Your task to perform on an android device: turn smart compose on in the gmail app Image 0: 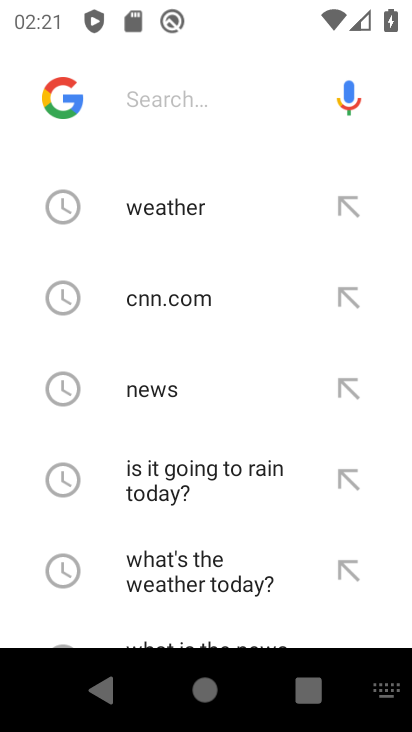
Step 0: press back button
Your task to perform on an android device: turn smart compose on in the gmail app Image 1: 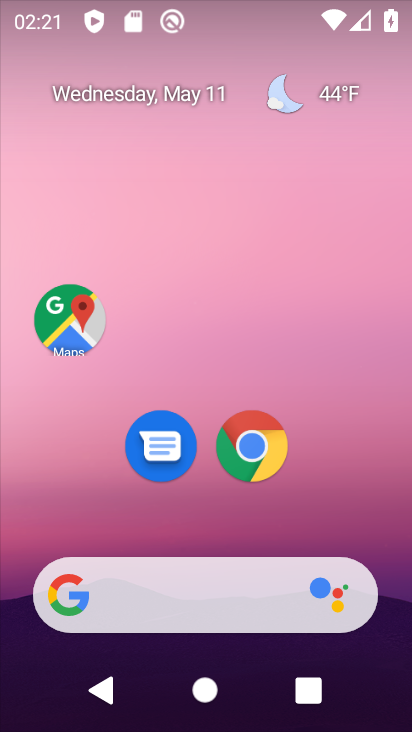
Step 1: drag from (343, 510) to (222, 199)
Your task to perform on an android device: turn smart compose on in the gmail app Image 2: 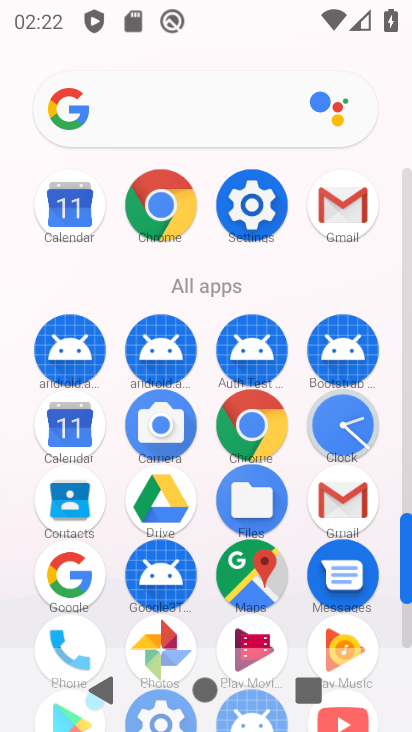
Step 2: click (343, 211)
Your task to perform on an android device: turn smart compose on in the gmail app Image 3: 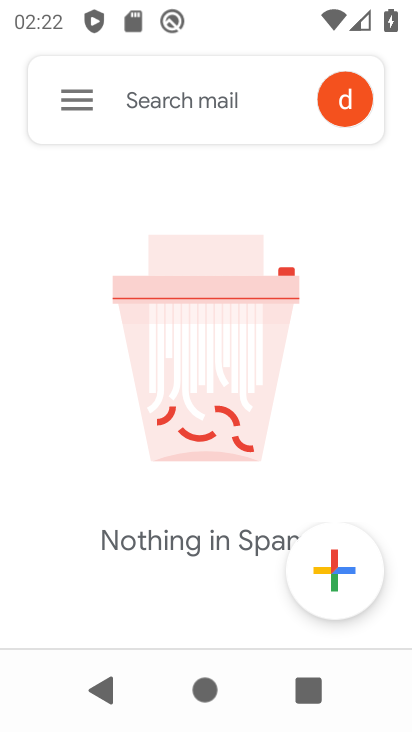
Step 3: click (82, 103)
Your task to perform on an android device: turn smart compose on in the gmail app Image 4: 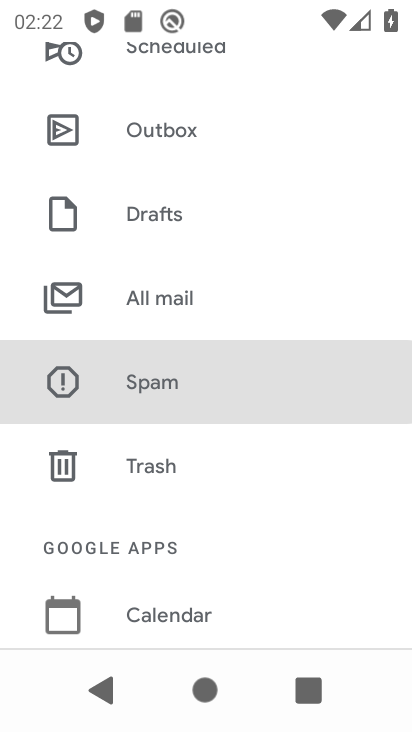
Step 4: drag from (157, 564) to (170, 274)
Your task to perform on an android device: turn smart compose on in the gmail app Image 5: 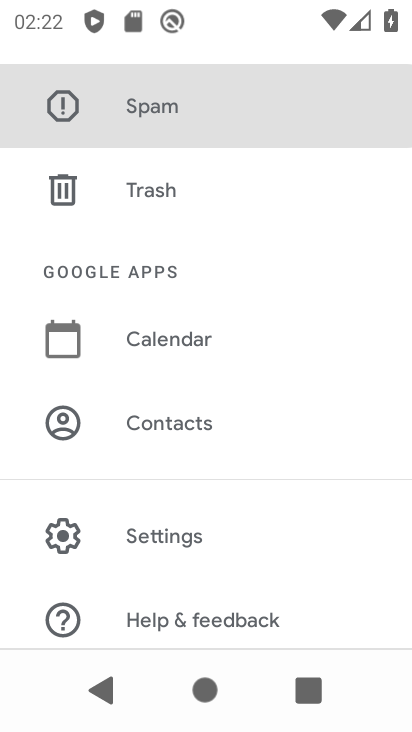
Step 5: click (126, 532)
Your task to perform on an android device: turn smart compose on in the gmail app Image 6: 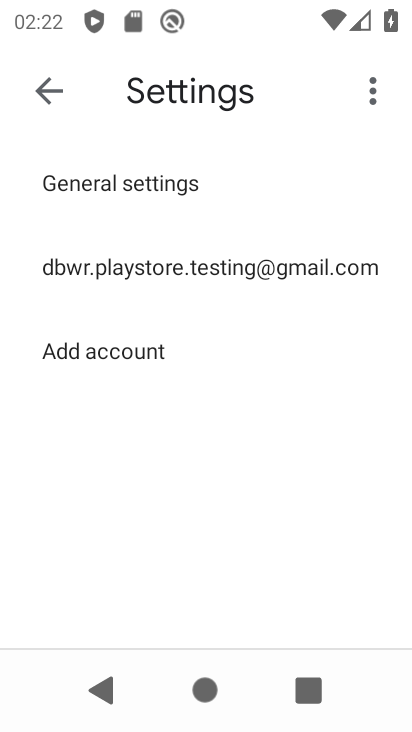
Step 6: click (175, 271)
Your task to perform on an android device: turn smart compose on in the gmail app Image 7: 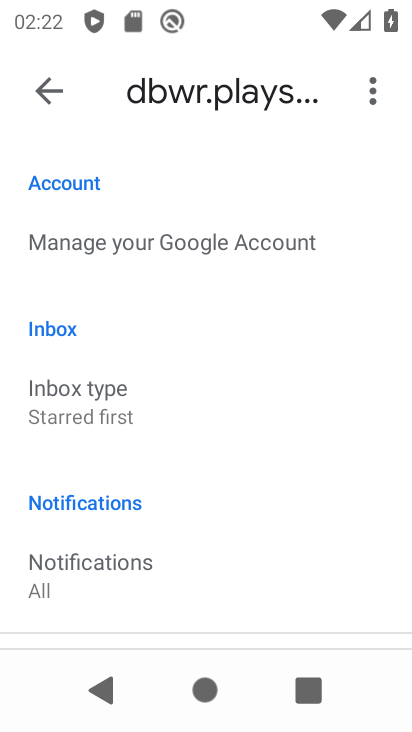
Step 7: task complete